Your task to perform on an android device: When is my next meeting? Image 0: 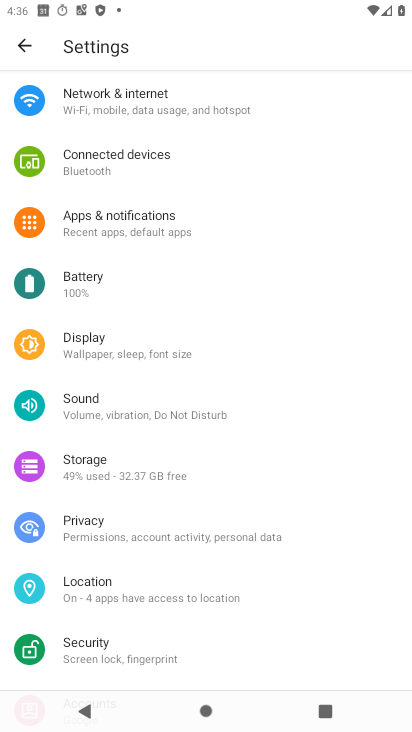
Step 0: press home button
Your task to perform on an android device: When is my next meeting? Image 1: 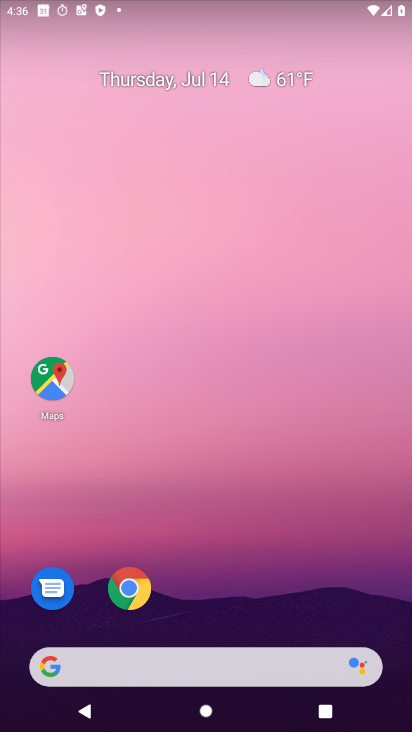
Step 1: drag from (213, 681) to (281, 231)
Your task to perform on an android device: When is my next meeting? Image 2: 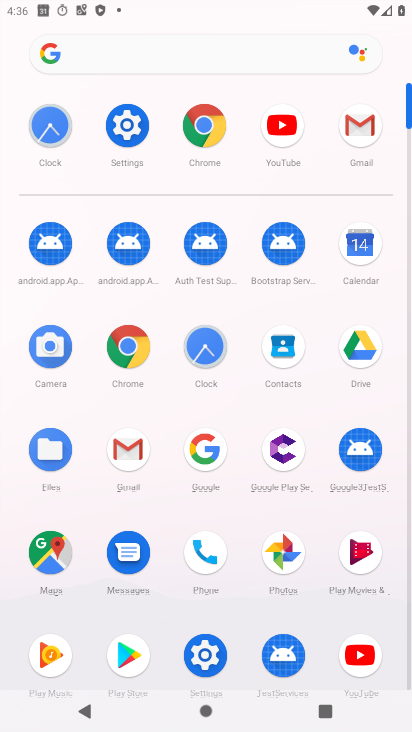
Step 2: click (360, 247)
Your task to perform on an android device: When is my next meeting? Image 3: 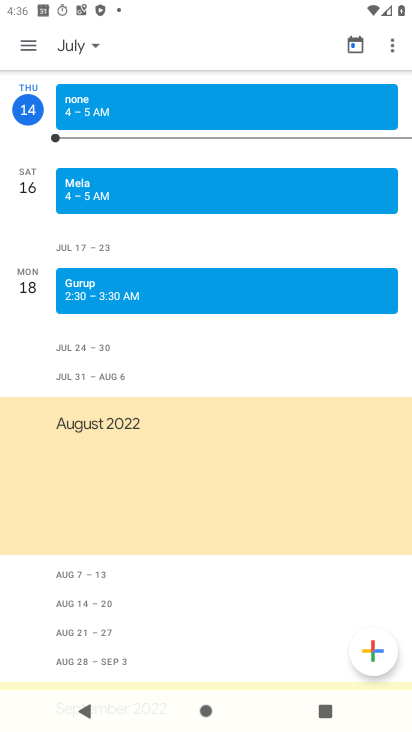
Step 3: click (350, 46)
Your task to perform on an android device: When is my next meeting? Image 4: 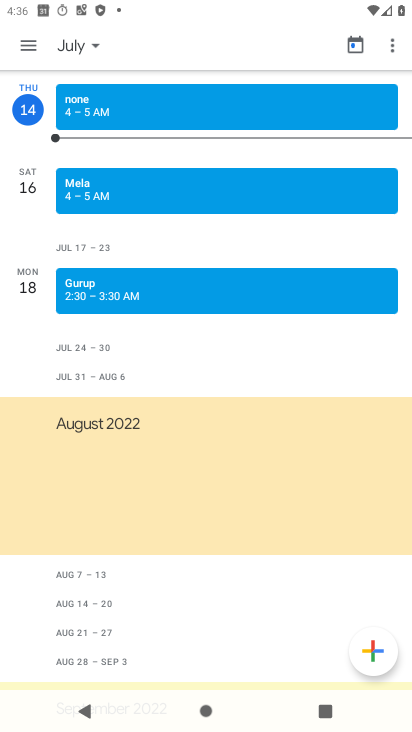
Step 4: click (353, 43)
Your task to perform on an android device: When is my next meeting? Image 5: 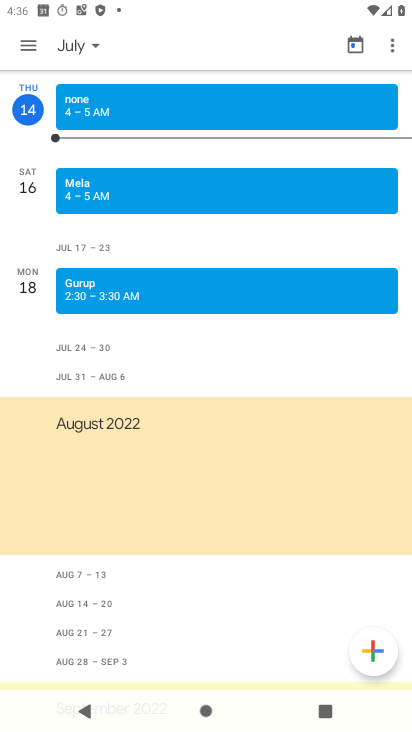
Step 5: click (353, 43)
Your task to perform on an android device: When is my next meeting? Image 6: 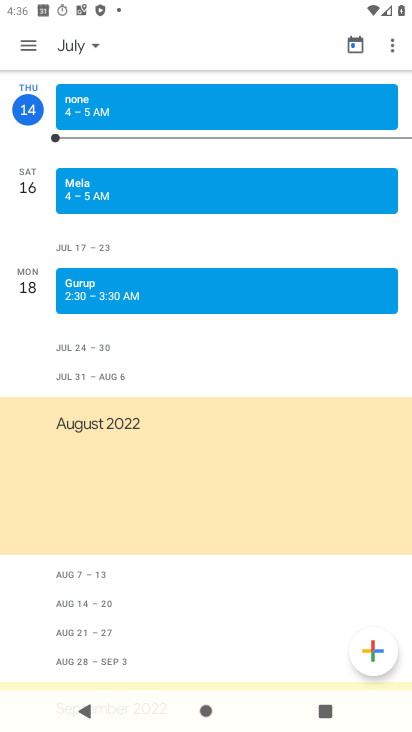
Step 6: click (97, 46)
Your task to perform on an android device: When is my next meeting? Image 7: 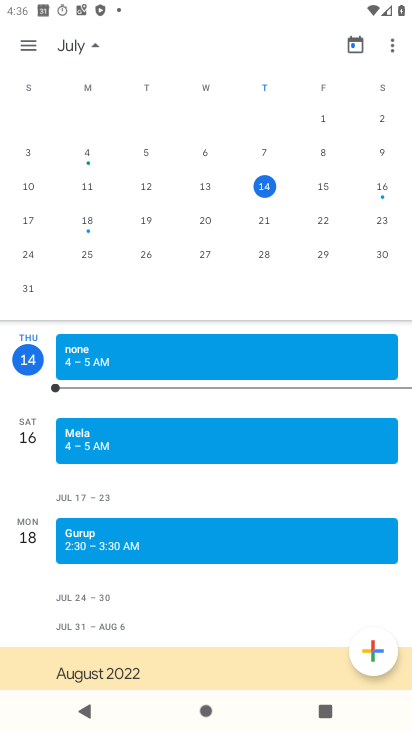
Step 7: click (387, 183)
Your task to perform on an android device: When is my next meeting? Image 8: 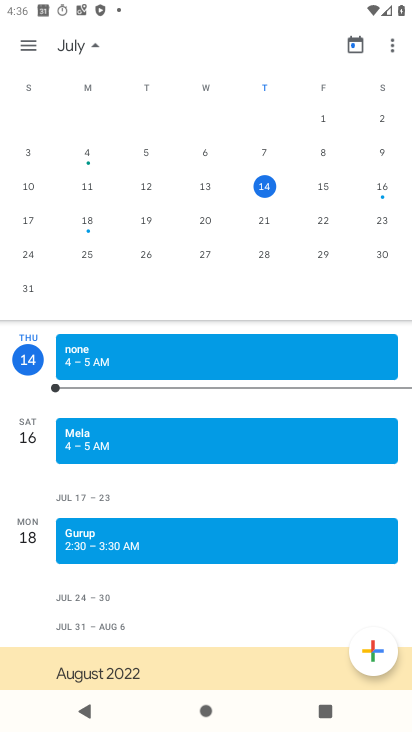
Step 8: click (386, 187)
Your task to perform on an android device: When is my next meeting? Image 9: 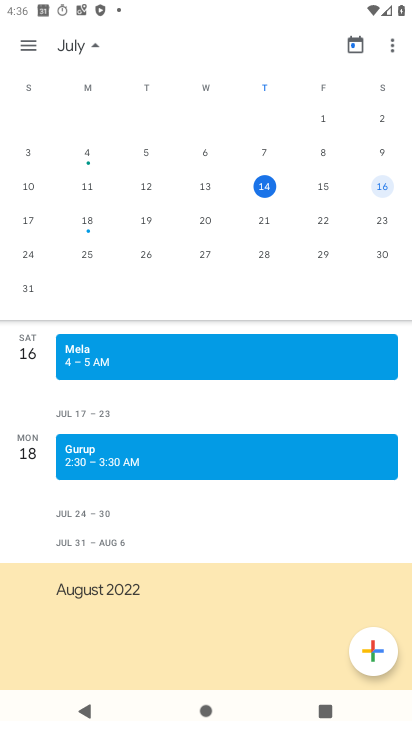
Step 9: click (29, 45)
Your task to perform on an android device: When is my next meeting? Image 10: 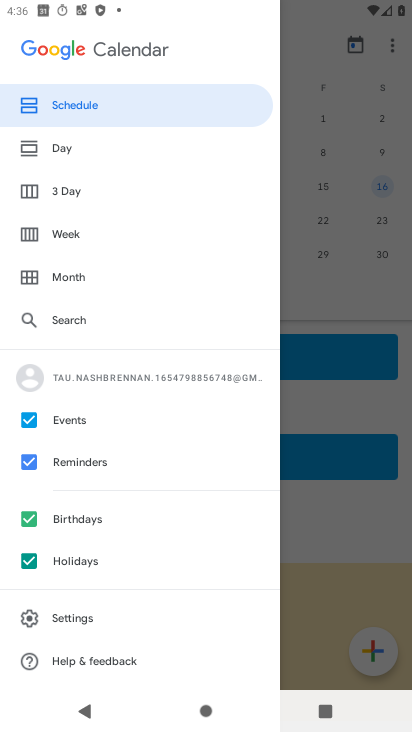
Step 10: click (63, 97)
Your task to perform on an android device: When is my next meeting? Image 11: 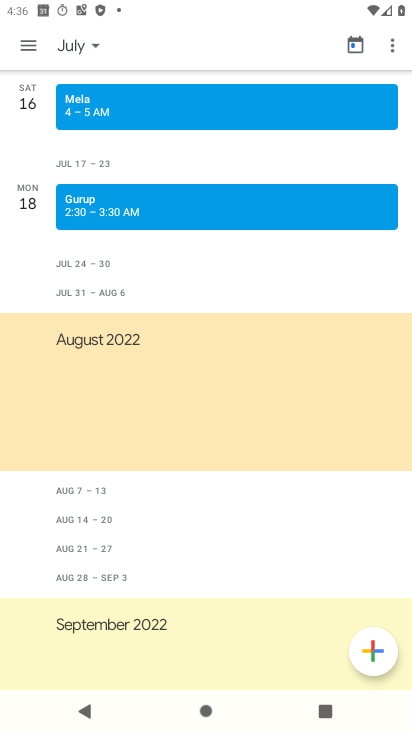
Step 11: task complete